Your task to perform on an android device: What's the weather today? Image 0: 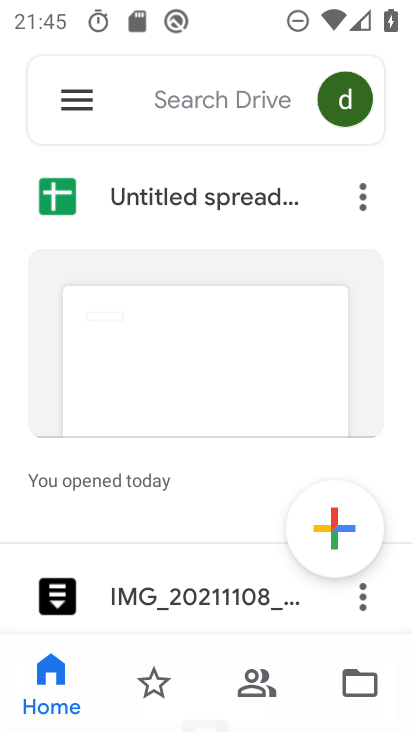
Step 0: press home button
Your task to perform on an android device: What's the weather today? Image 1: 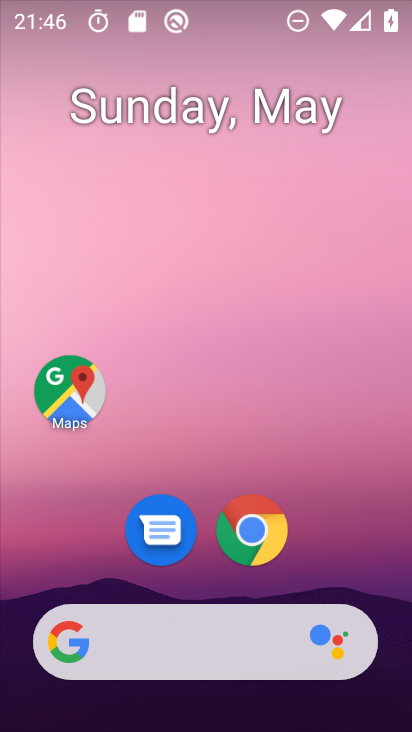
Step 1: drag from (279, 671) to (153, 260)
Your task to perform on an android device: What's the weather today? Image 2: 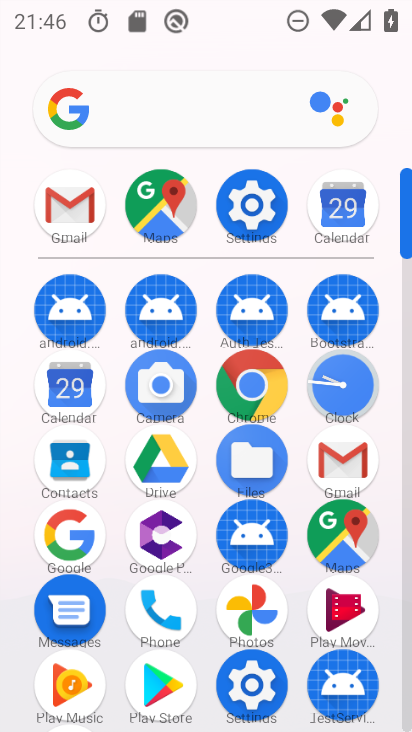
Step 2: click (154, 100)
Your task to perform on an android device: What's the weather today? Image 3: 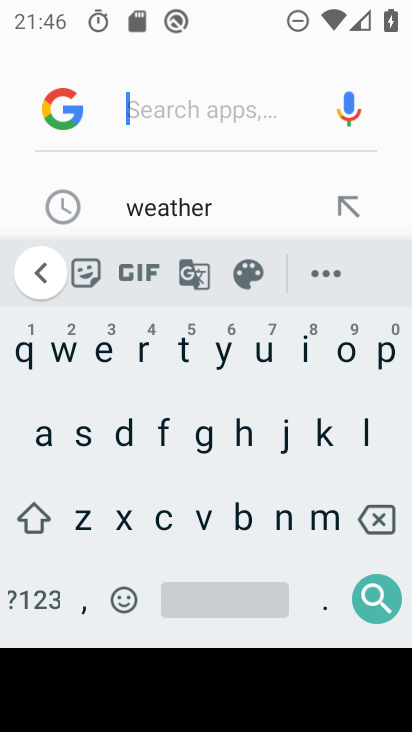
Step 3: click (200, 194)
Your task to perform on an android device: What's the weather today? Image 4: 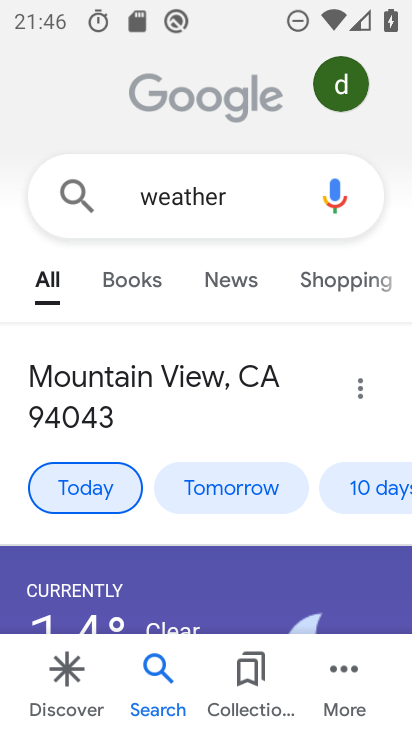
Step 4: task complete